Your task to perform on an android device: Go to settings Image 0: 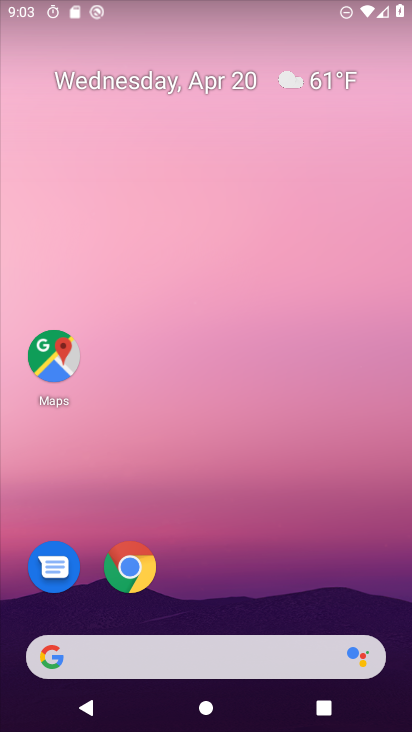
Step 0: drag from (402, 556) to (314, 9)
Your task to perform on an android device: Go to settings Image 1: 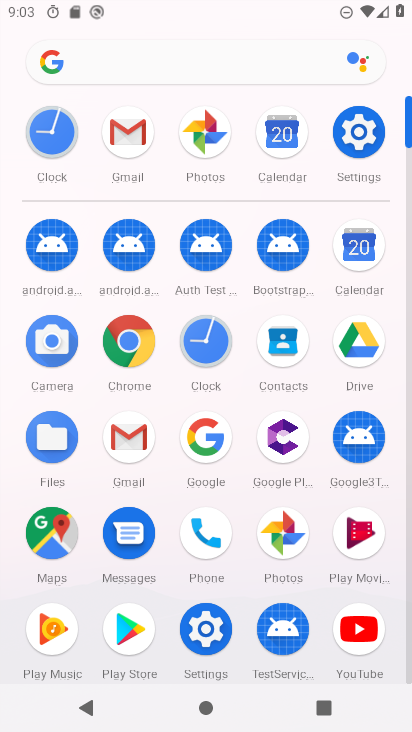
Step 1: click (347, 133)
Your task to perform on an android device: Go to settings Image 2: 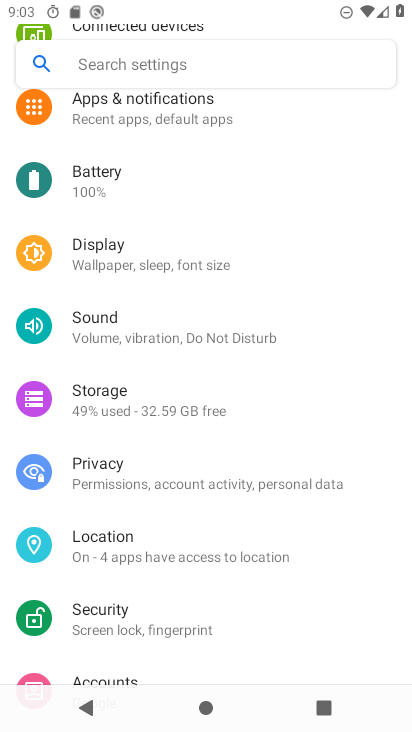
Step 2: task complete